Your task to perform on an android device: turn on airplane mode Image 0: 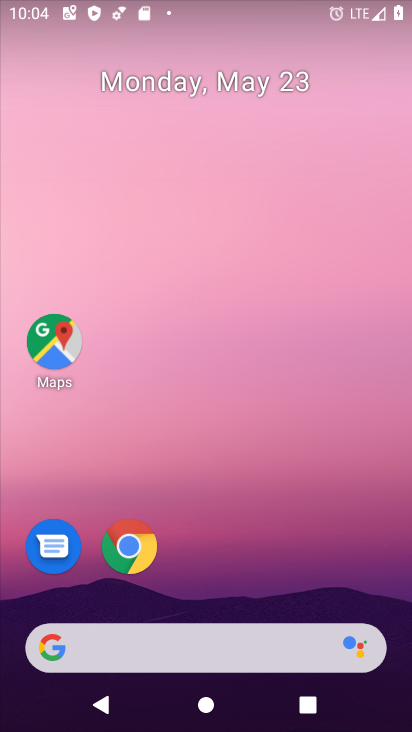
Step 0: drag from (384, 601) to (351, 30)
Your task to perform on an android device: turn on airplane mode Image 1: 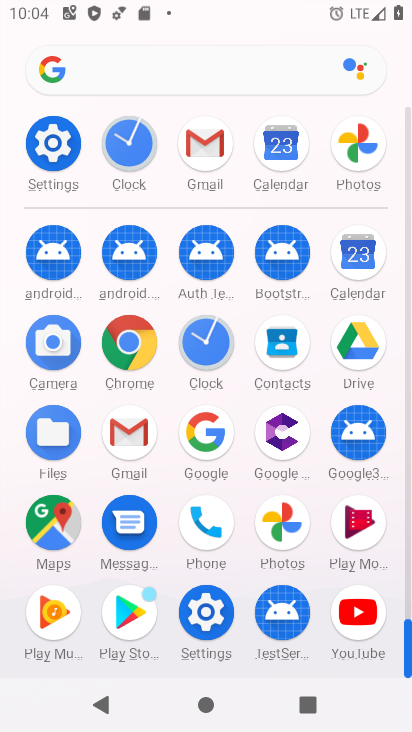
Step 1: click (204, 613)
Your task to perform on an android device: turn on airplane mode Image 2: 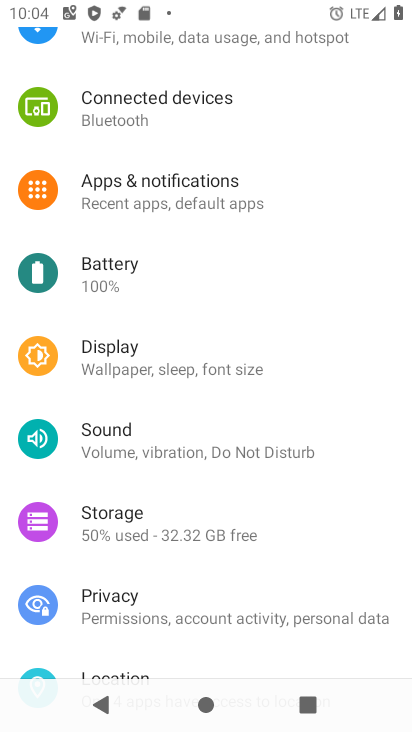
Step 2: drag from (330, 104) to (347, 479)
Your task to perform on an android device: turn on airplane mode Image 3: 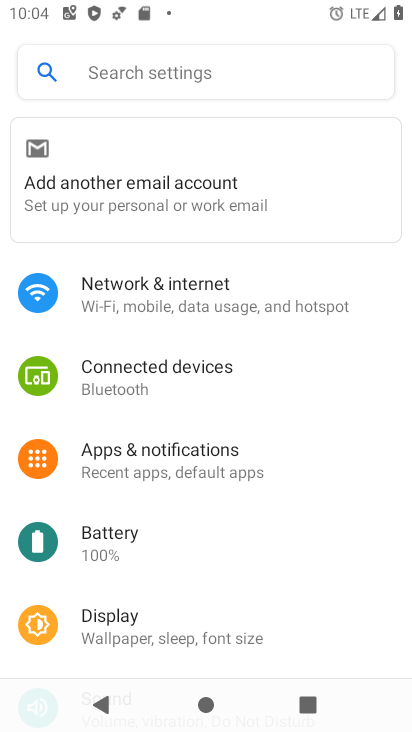
Step 3: click (147, 284)
Your task to perform on an android device: turn on airplane mode Image 4: 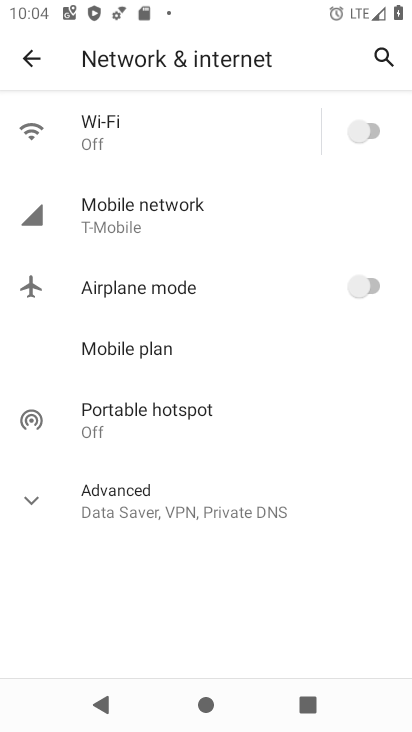
Step 4: click (380, 286)
Your task to perform on an android device: turn on airplane mode Image 5: 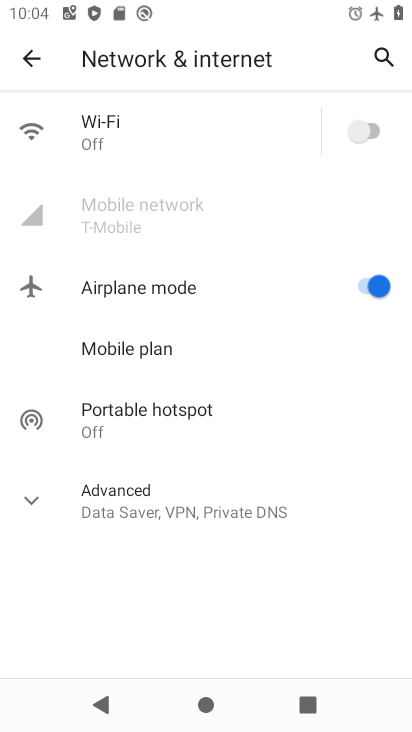
Step 5: task complete